Your task to perform on an android device: empty trash in the gmail app Image 0: 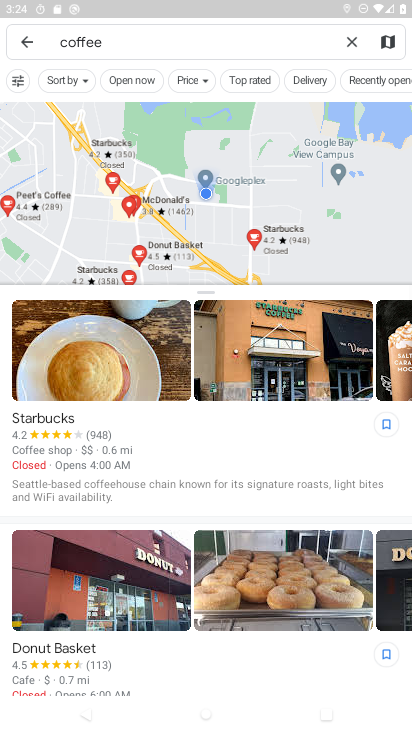
Step 0: press home button
Your task to perform on an android device: empty trash in the gmail app Image 1: 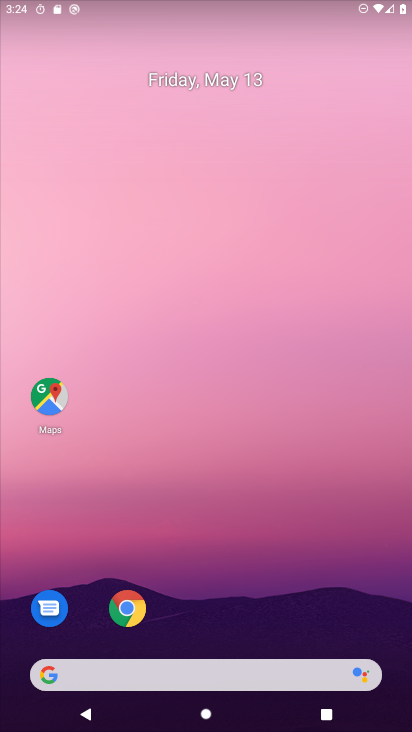
Step 1: drag from (240, 579) to (284, 135)
Your task to perform on an android device: empty trash in the gmail app Image 2: 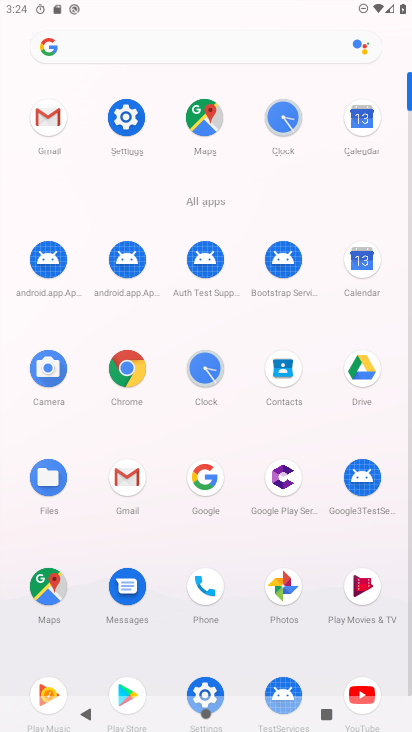
Step 2: click (57, 116)
Your task to perform on an android device: empty trash in the gmail app Image 3: 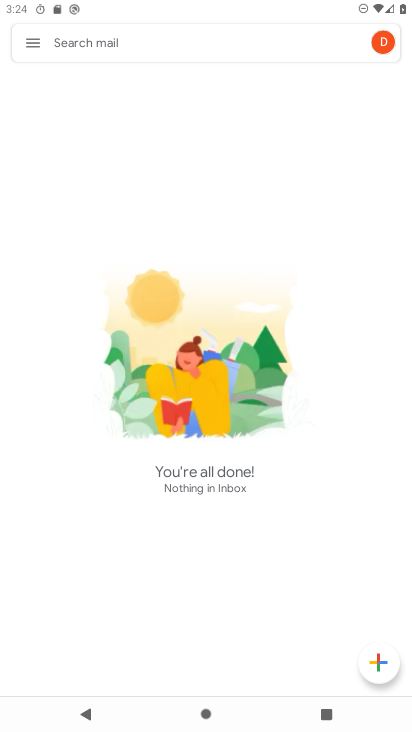
Step 3: click (36, 42)
Your task to perform on an android device: empty trash in the gmail app Image 4: 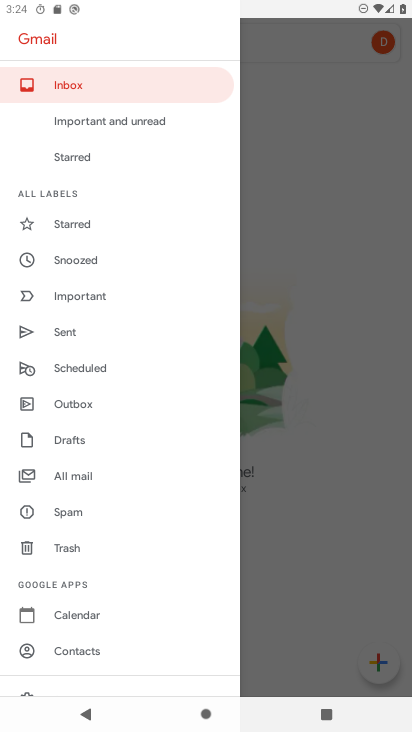
Step 4: click (78, 538)
Your task to perform on an android device: empty trash in the gmail app Image 5: 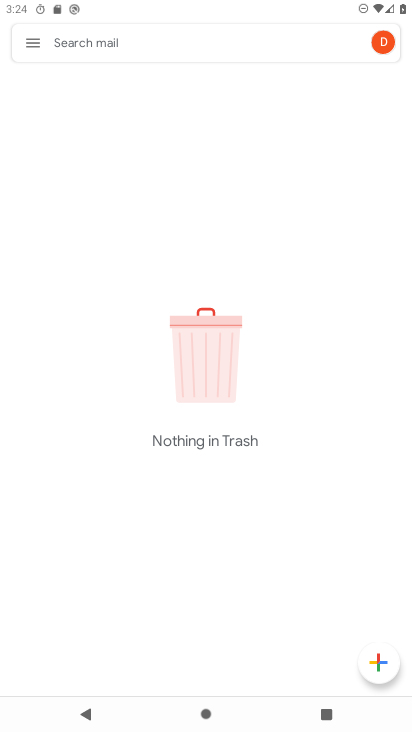
Step 5: task complete